Your task to perform on an android device: Go to wifi settings Image 0: 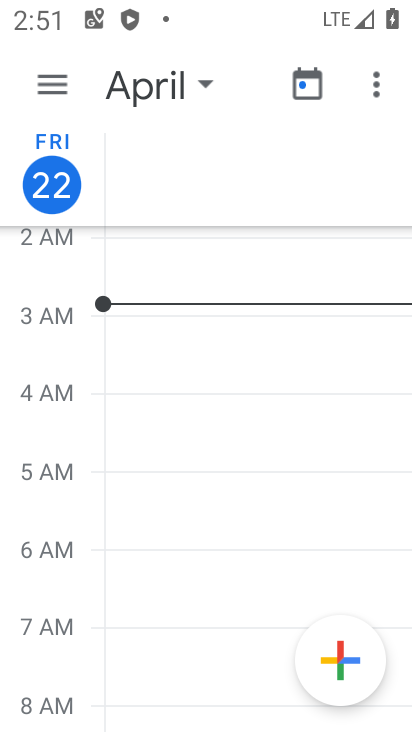
Step 0: press home button
Your task to perform on an android device: Go to wifi settings Image 1: 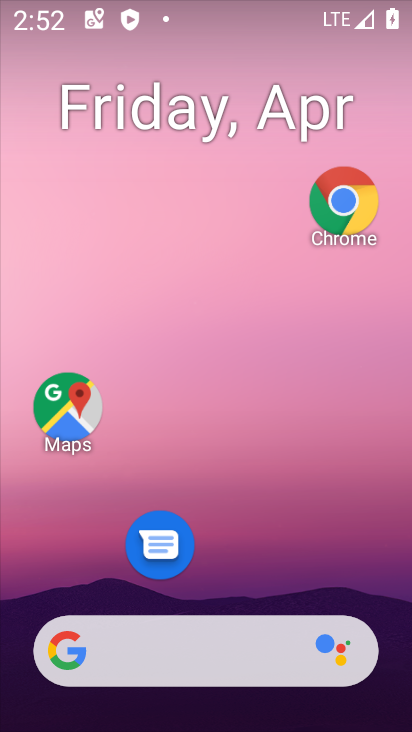
Step 1: drag from (230, 563) to (349, 187)
Your task to perform on an android device: Go to wifi settings Image 2: 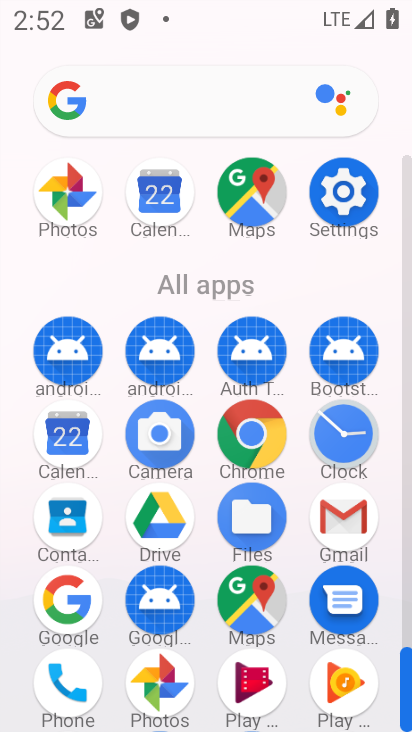
Step 2: click (335, 212)
Your task to perform on an android device: Go to wifi settings Image 3: 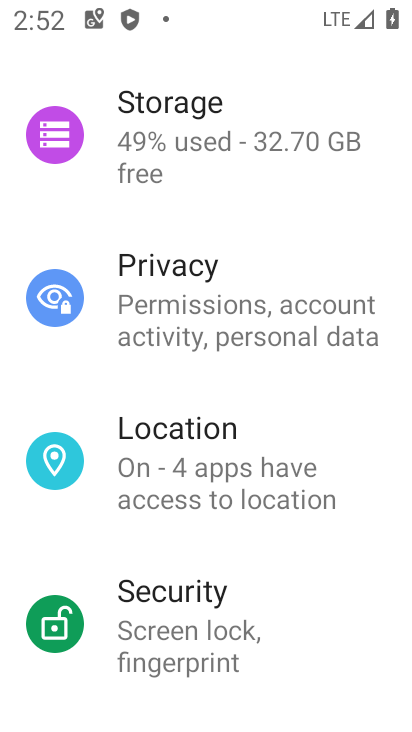
Step 3: drag from (277, 186) to (192, 471)
Your task to perform on an android device: Go to wifi settings Image 4: 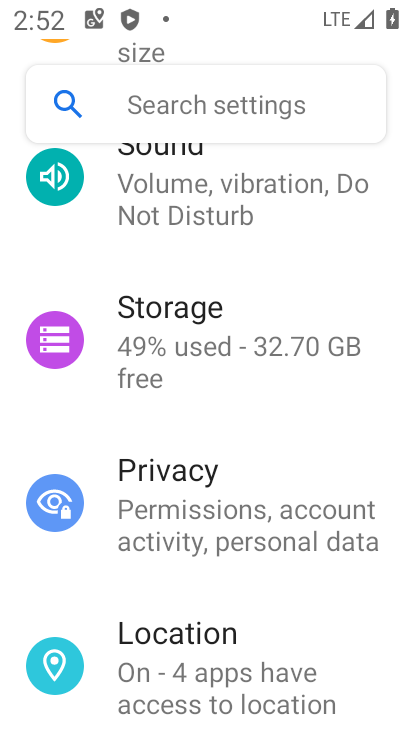
Step 4: drag from (238, 226) to (189, 561)
Your task to perform on an android device: Go to wifi settings Image 5: 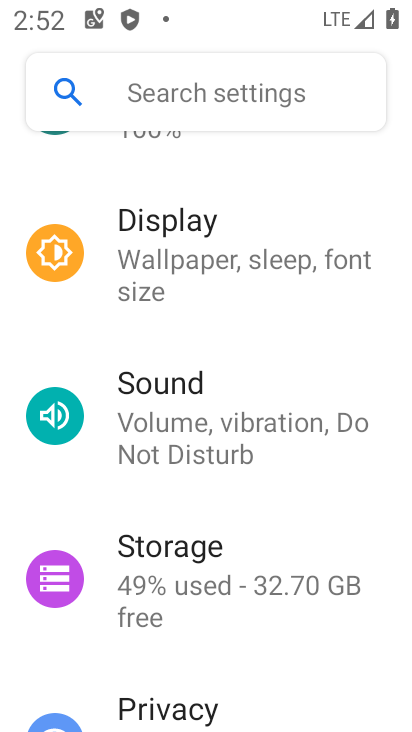
Step 5: drag from (244, 203) to (130, 654)
Your task to perform on an android device: Go to wifi settings Image 6: 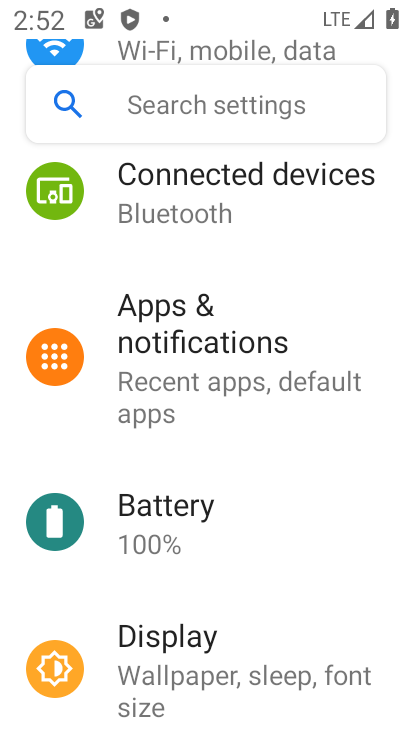
Step 6: drag from (190, 232) to (188, 660)
Your task to perform on an android device: Go to wifi settings Image 7: 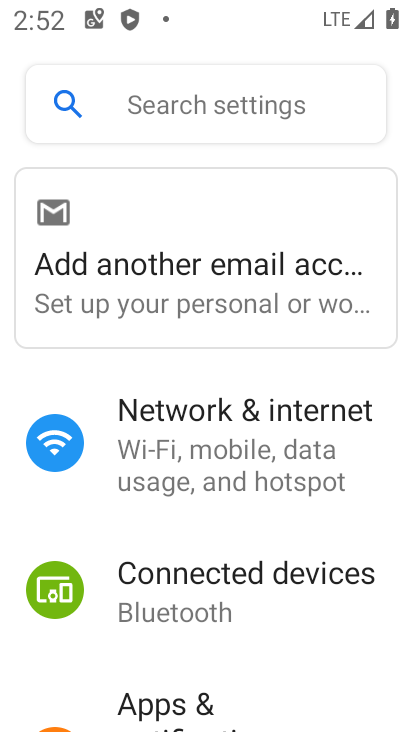
Step 7: click (222, 461)
Your task to perform on an android device: Go to wifi settings Image 8: 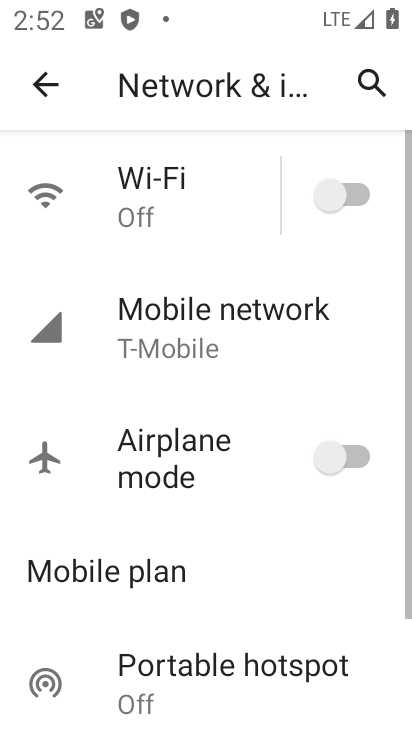
Step 8: click (158, 199)
Your task to perform on an android device: Go to wifi settings Image 9: 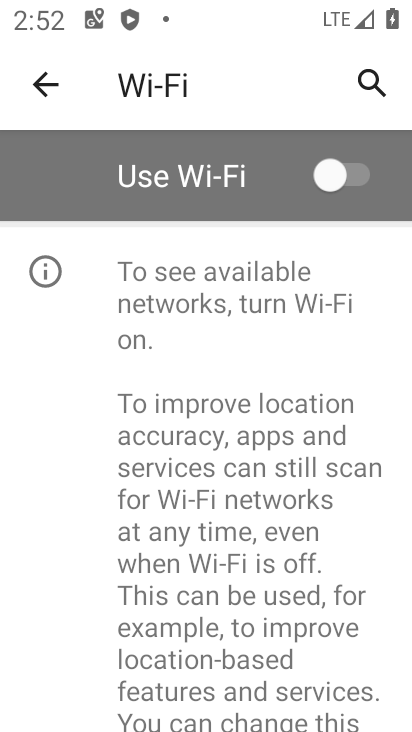
Step 9: task complete